Your task to perform on an android device: Open the map Image 0: 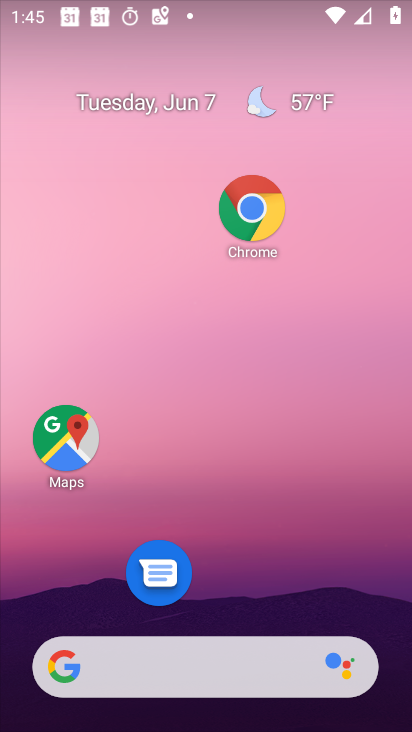
Step 0: click (78, 446)
Your task to perform on an android device: Open the map Image 1: 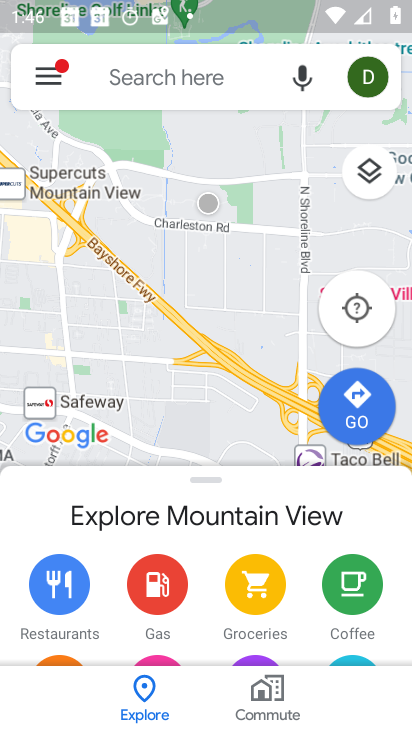
Step 1: task complete